Your task to perform on an android device: turn vacation reply on in the gmail app Image 0: 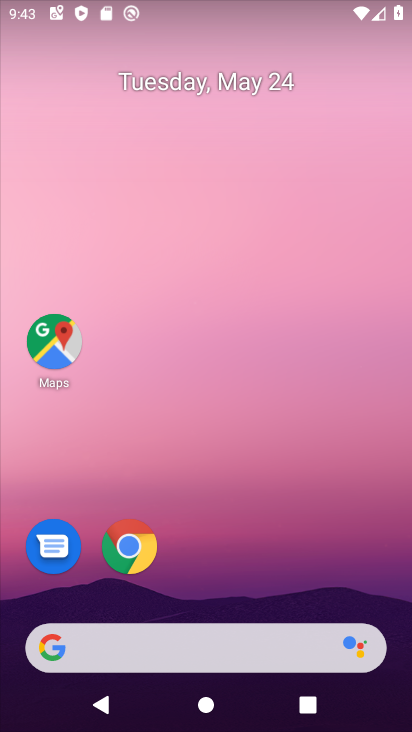
Step 0: drag from (203, 618) to (314, 173)
Your task to perform on an android device: turn vacation reply on in the gmail app Image 1: 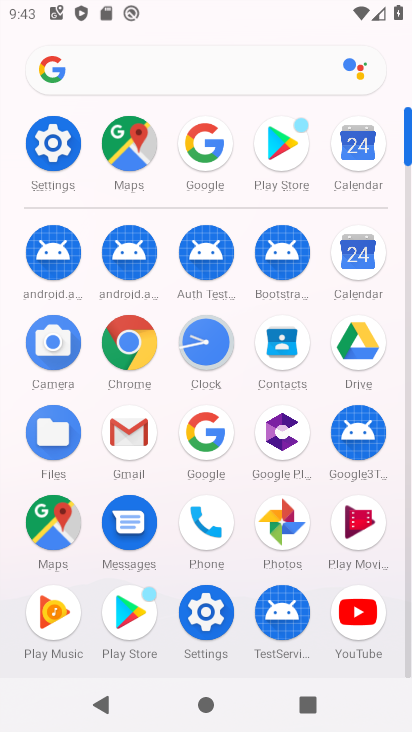
Step 1: click (134, 432)
Your task to perform on an android device: turn vacation reply on in the gmail app Image 2: 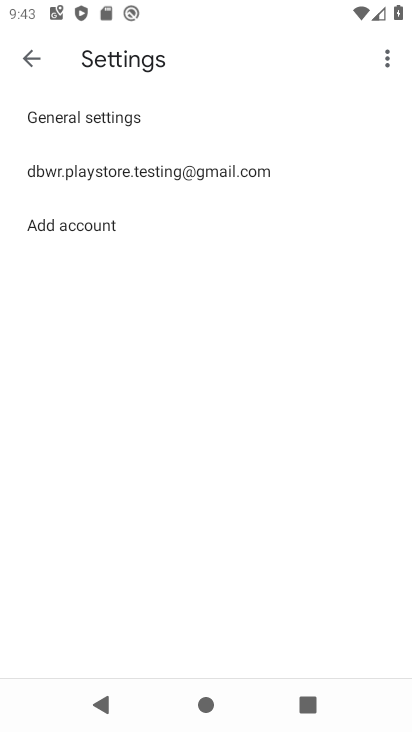
Step 2: click (140, 167)
Your task to perform on an android device: turn vacation reply on in the gmail app Image 3: 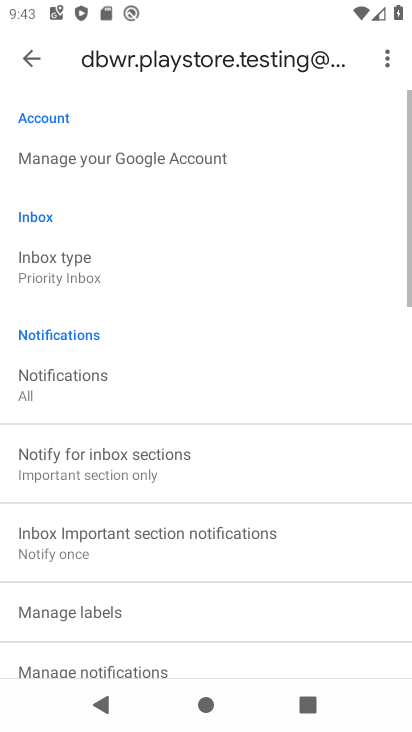
Step 3: drag from (203, 654) to (259, 322)
Your task to perform on an android device: turn vacation reply on in the gmail app Image 4: 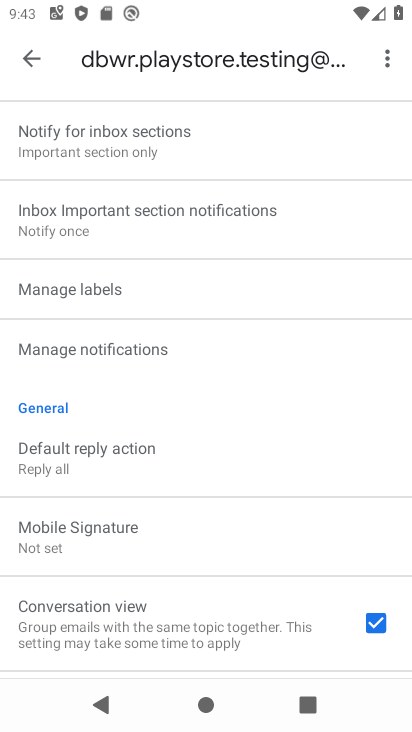
Step 4: drag from (217, 631) to (272, 288)
Your task to perform on an android device: turn vacation reply on in the gmail app Image 5: 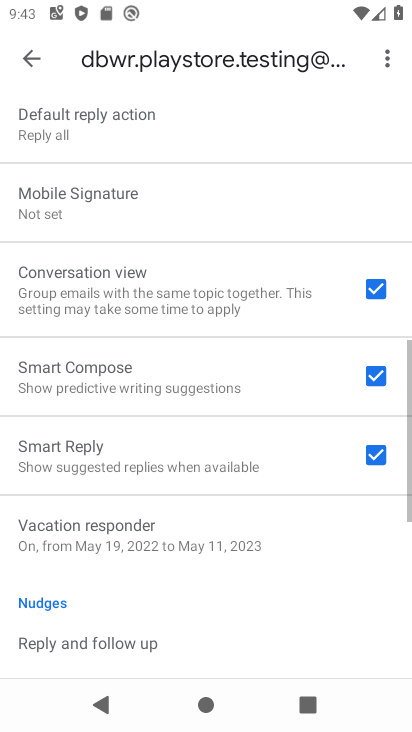
Step 5: click (136, 544)
Your task to perform on an android device: turn vacation reply on in the gmail app Image 6: 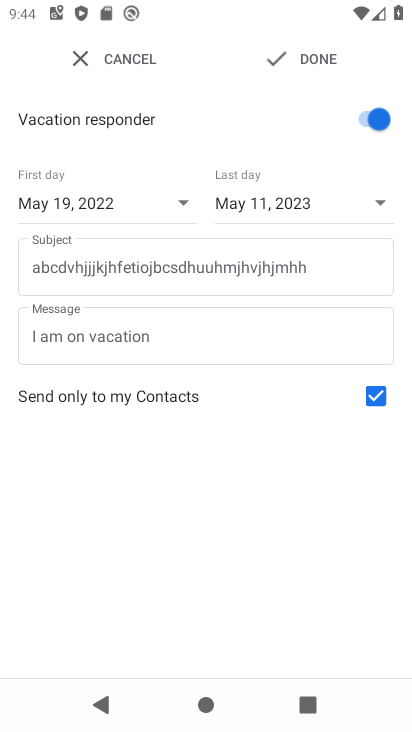
Step 6: click (307, 61)
Your task to perform on an android device: turn vacation reply on in the gmail app Image 7: 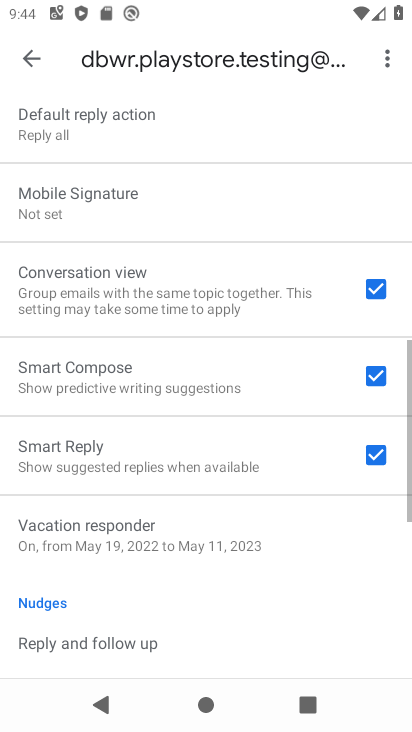
Step 7: task complete